Your task to perform on an android device: Open the web browser Image 0: 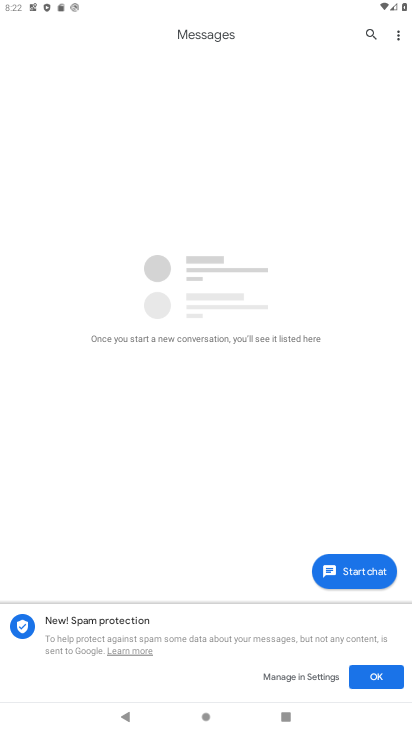
Step 0: press home button
Your task to perform on an android device: Open the web browser Image 1: 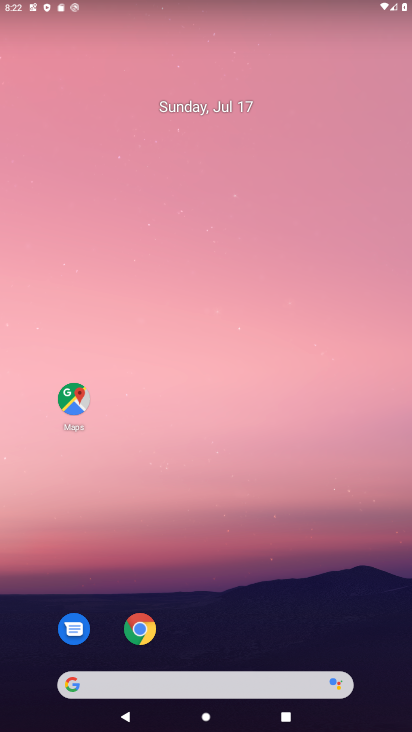
Step 1: click (145, 629)
Your task to perform on an android device: Open the web browser Image 2: 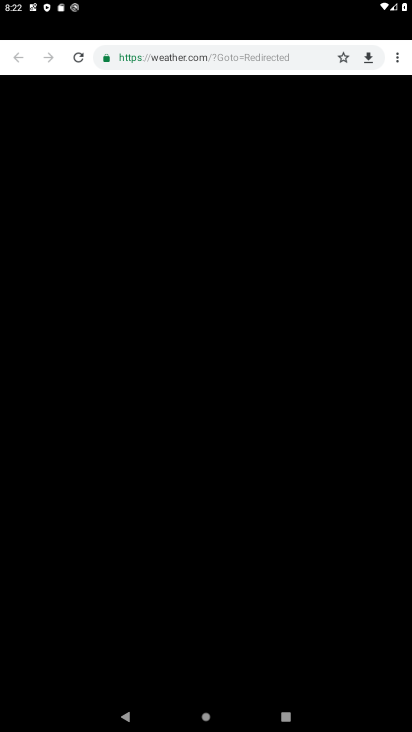
Step 2: task complete